Your task to perform on an android device: Clear all items from cart on bestbuy.com. Add "razer naga" to the cart on bestbuy.com, then select checkout. Image 0: 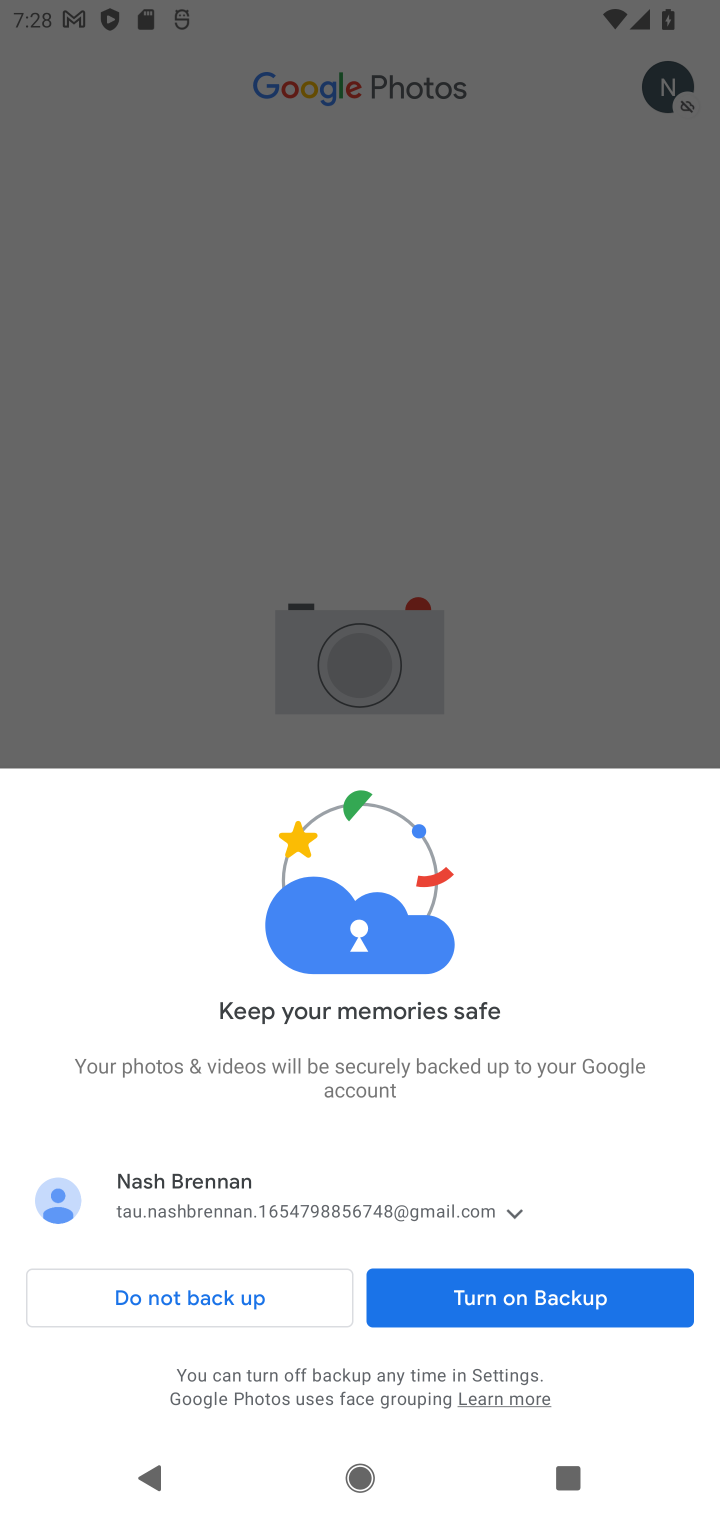
Step 0: press home button
Your task to perform on an android device: Clear all items from cart on bestbuy.com. Add "razer naga" to the cart on bestbuy.com, then select checkout. Image 1: 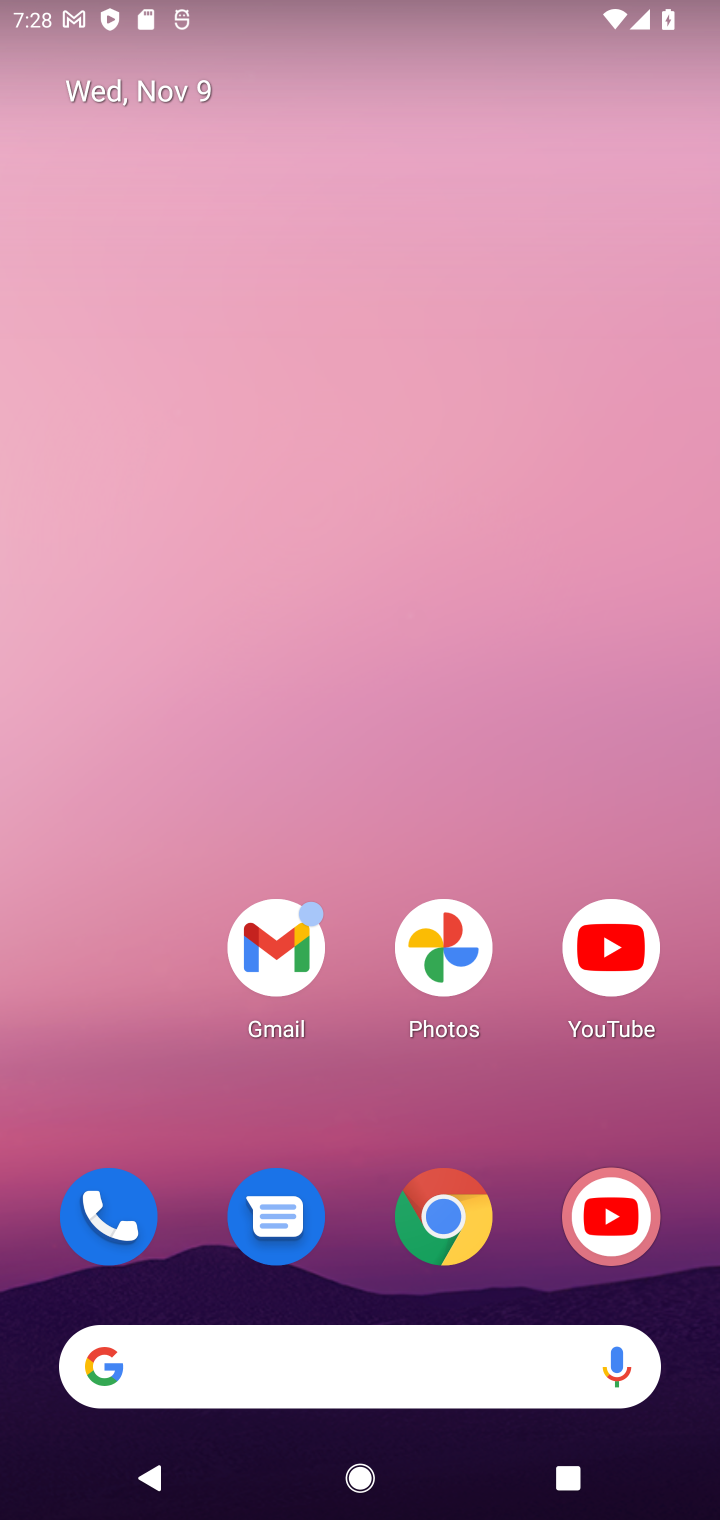
Step 1: drag from (388, 686) to (348, 158)
Your task to perform on an android device: Clear all items from cart on bestbuy.com. Add "razer naga" to the cart on bestbuy.com, then select checkout. Image 2: 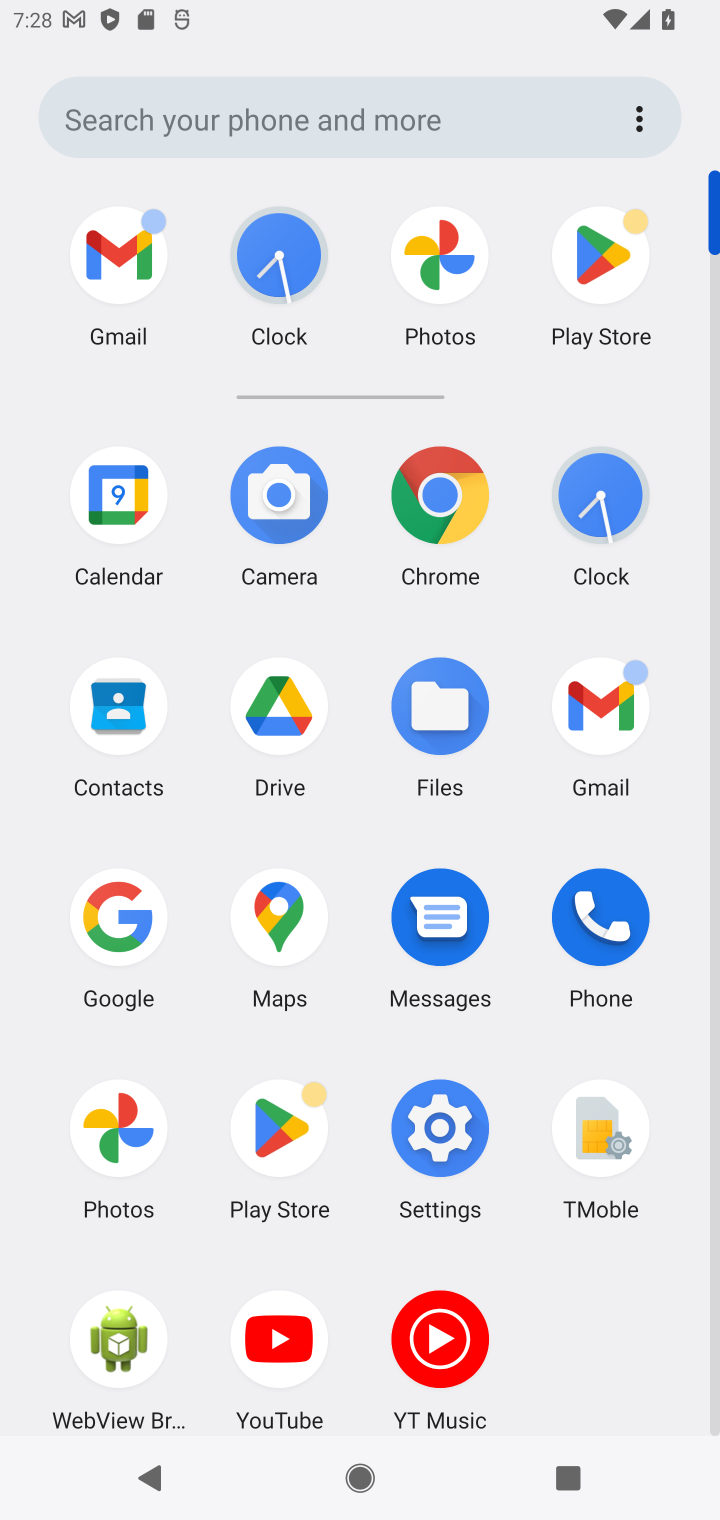
Step 2: click (438, 498)
Your task to perform on an android device: Clear all items from cart on bestbuy.com. Add "razer naga" to the cart on bestbuy.com, then select checkout. Image 3: 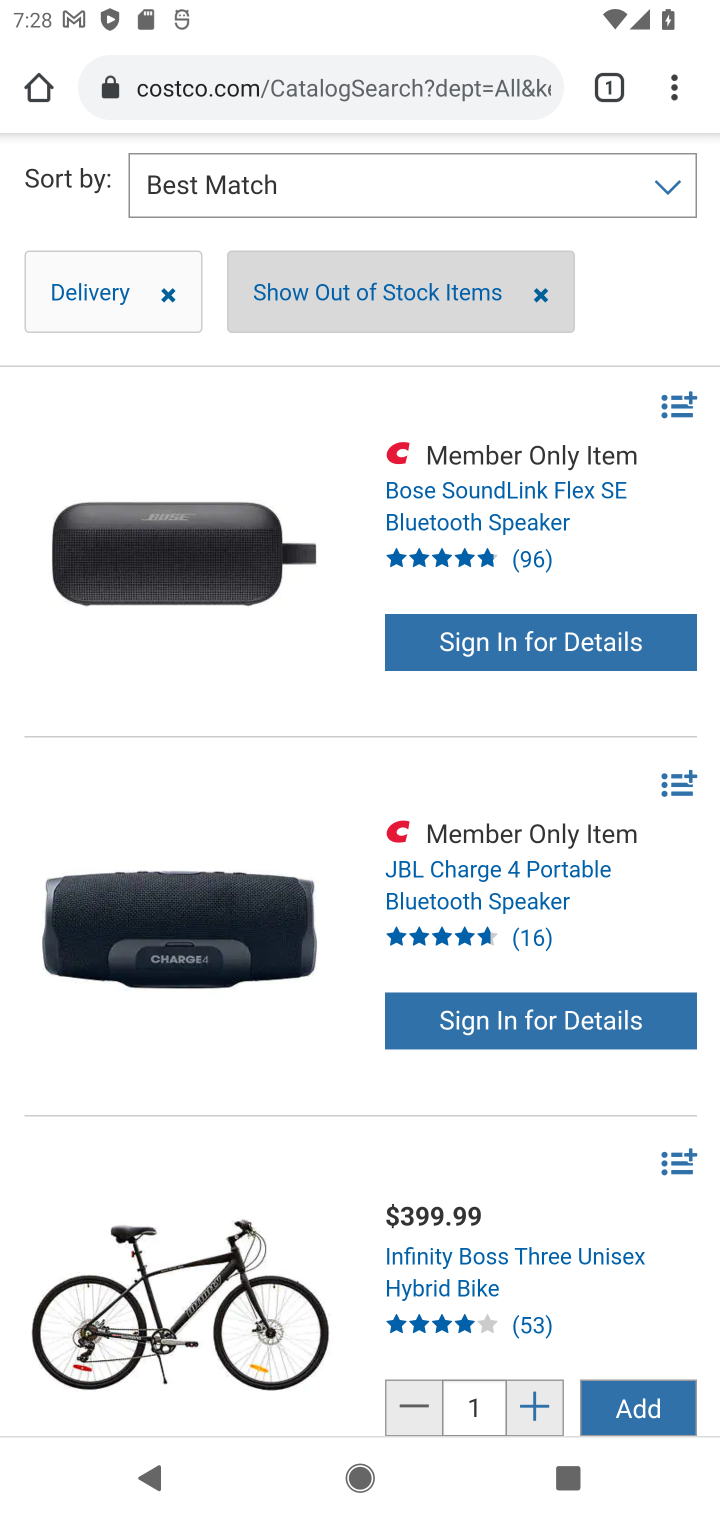
Step 3: click (496, 89)
Your task to perform on an android device: Clear all items from cart on bestbuy.com. Add "razer naga" to the cart on bestbuy.com, then select checkout. Image 4: 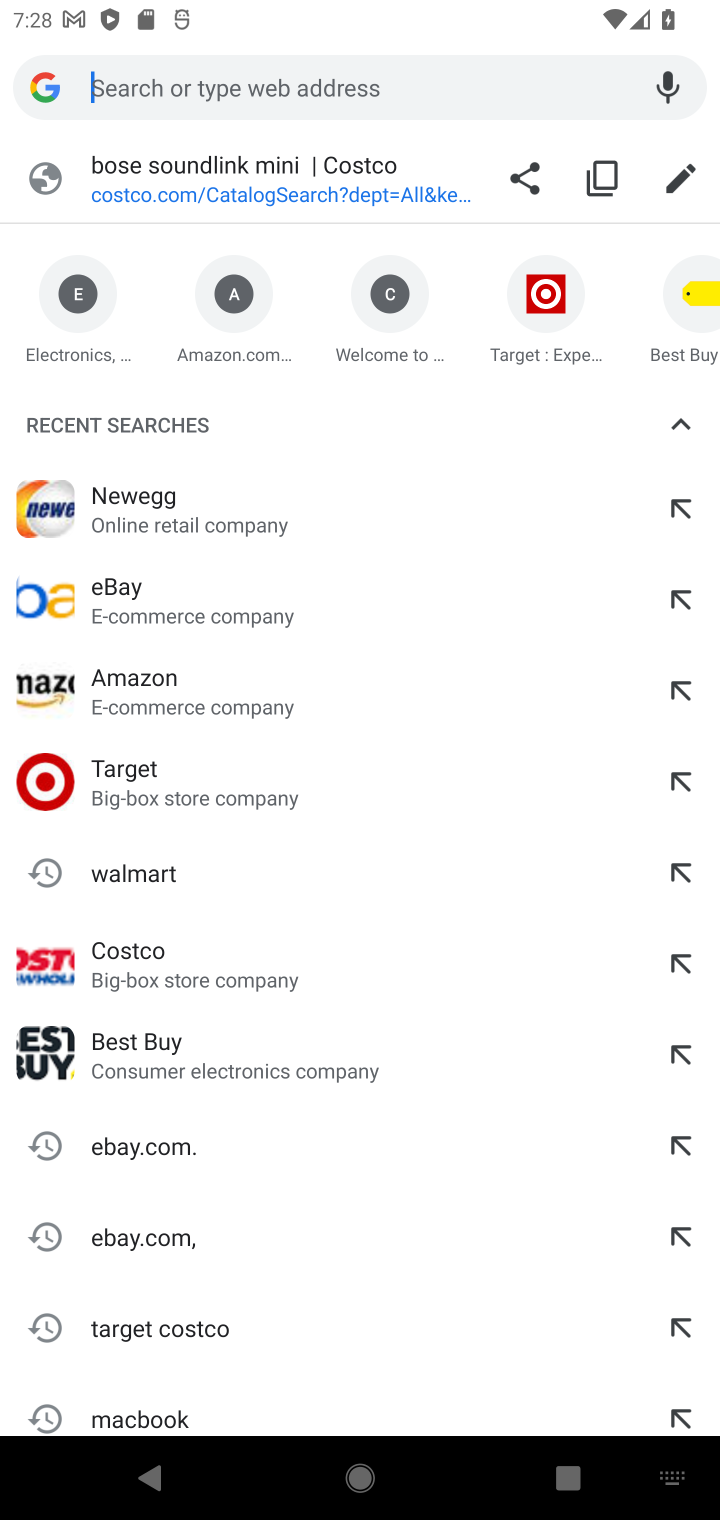
Step 4: type "bestbuy.com"
Your task to perform on an android device: Clear all items from cart on bestbuy.com. Add "razer naga" to the cart on bestbuy.com, then select checkout. Image 5: 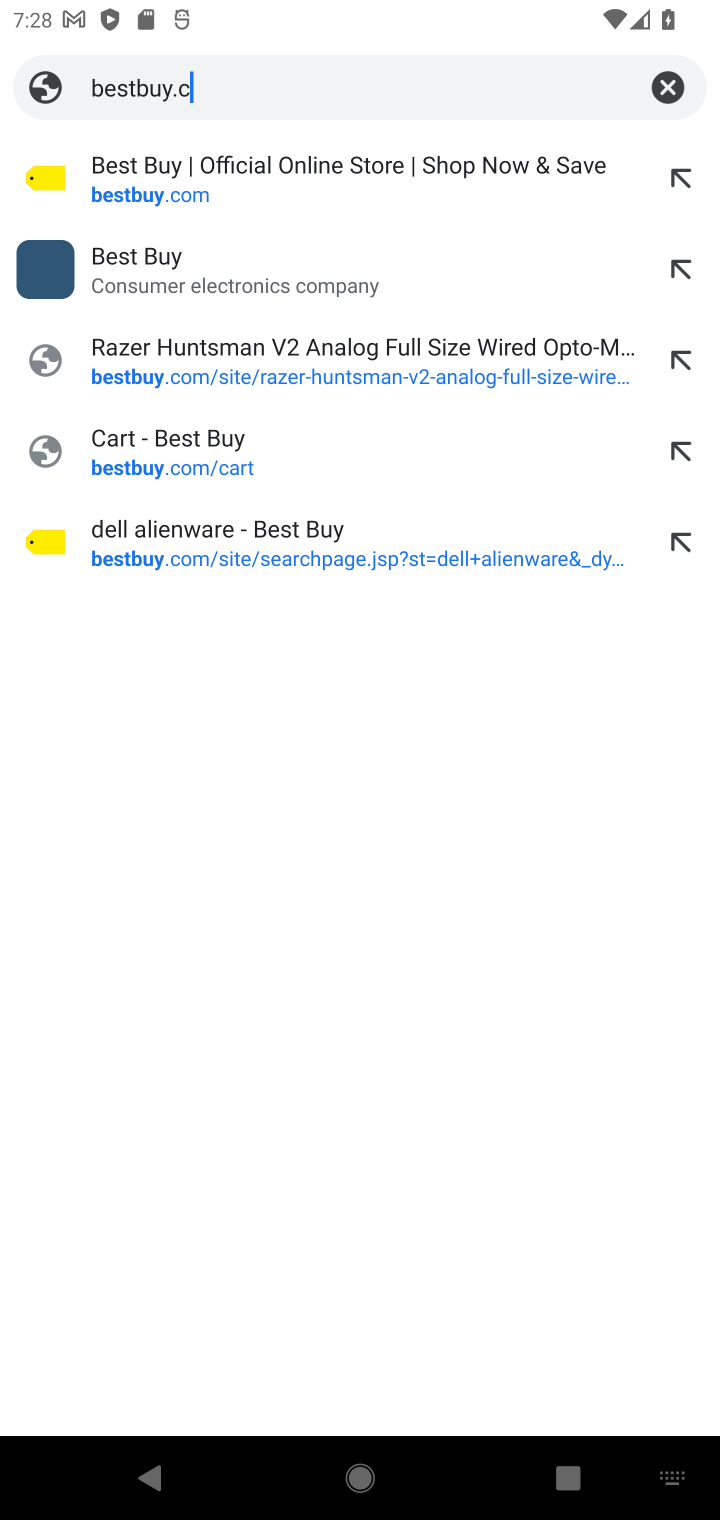
Step 5: press enter
Your task to perform on an android device: Clear all items from cart on bestbuy.com. Add "razer naga" to the cart on bestbuy.com, then select checkout. Image 6: 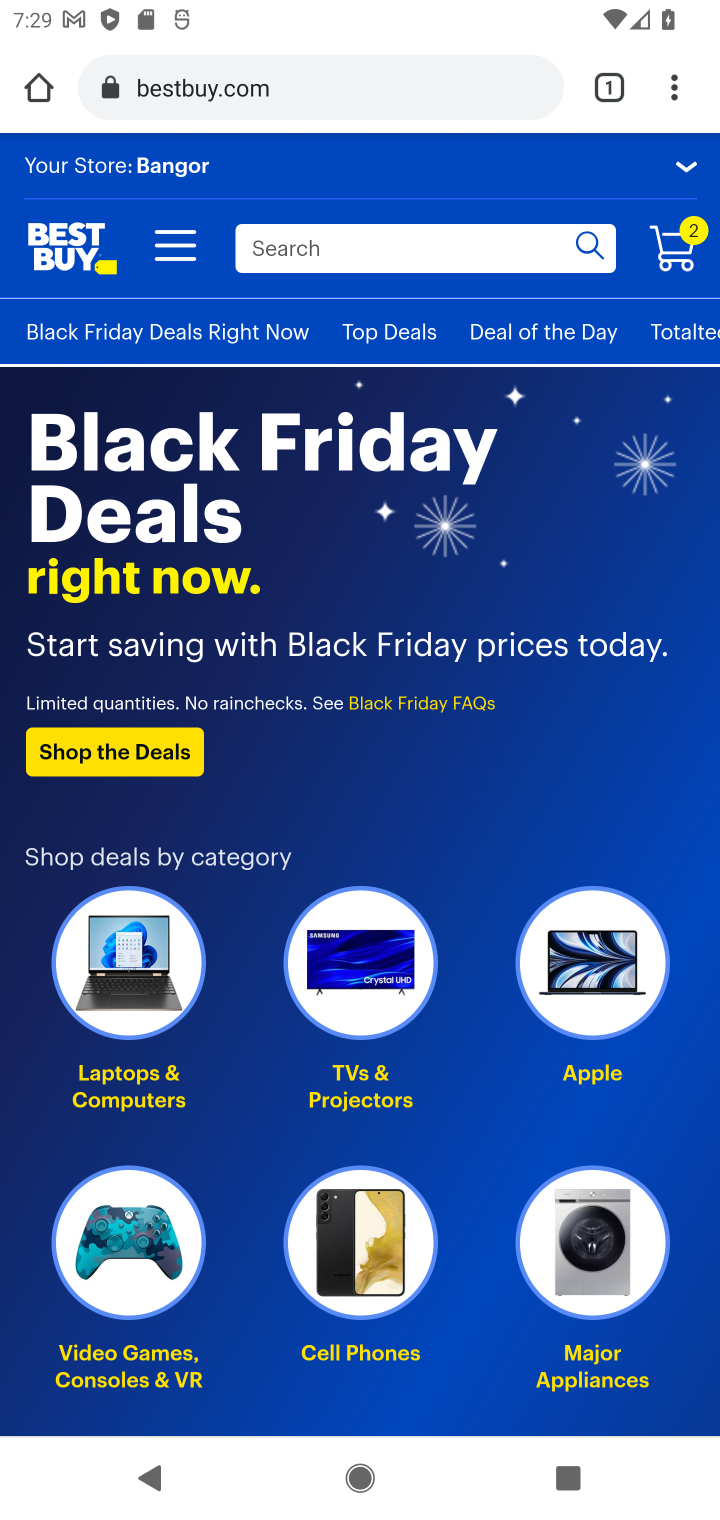
Step 6: click (497, 263)
Your task to perform on an android device: Clear all items from cart on bestbuy.com. Add "razer naga" to the cart on bestbuy.com, then select checkout. Image 7: 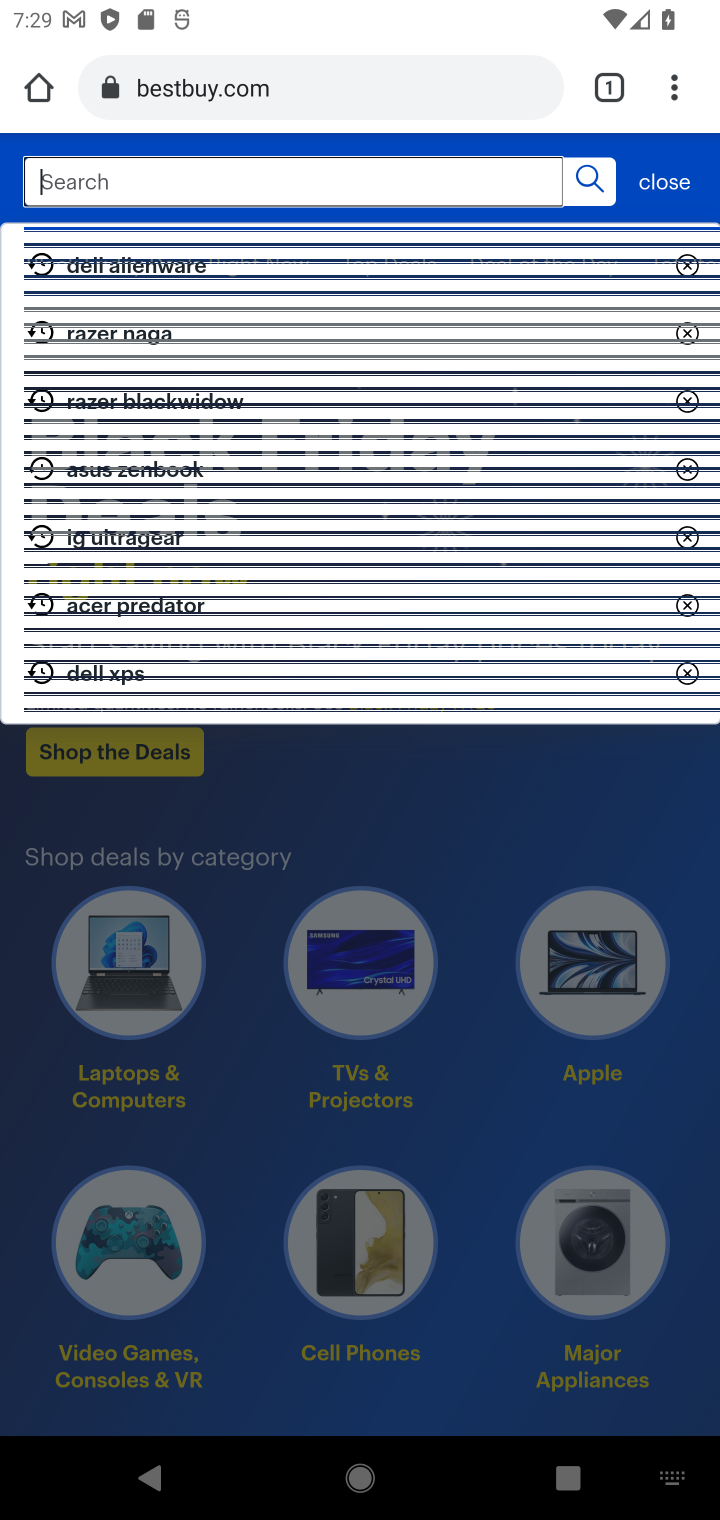
Step 7: type "razer naga"
Your task to perform on an android device: Clear all items from cart on bestbuy.com. Add "razer naga" to the cart on bestbuy.com, then select checkout. Image 8: 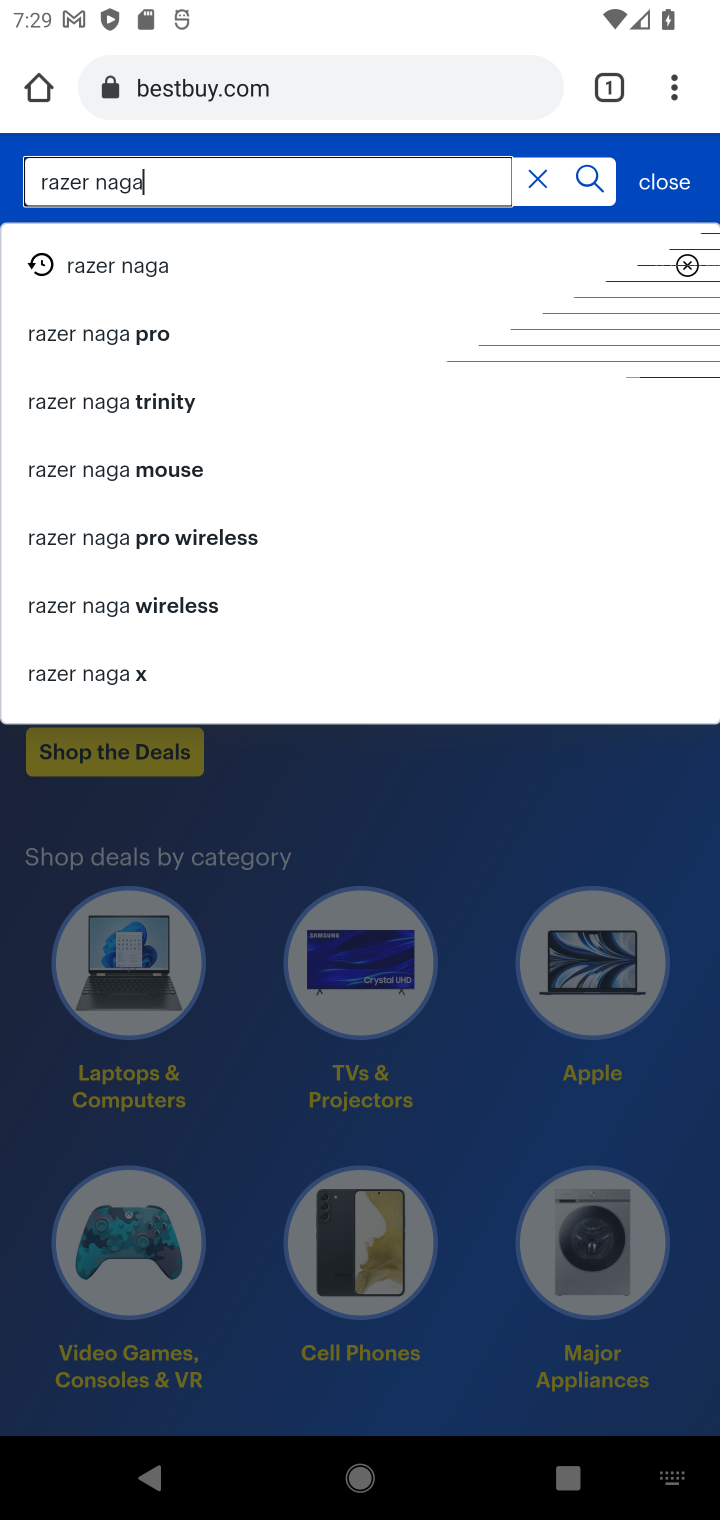
Step 8: press enter
Your task to perform on an android device: Clear all items from cart on bestbuy.com. Add "razer naga" to the cart on bestbuy.com, then select checkout. Image 9: 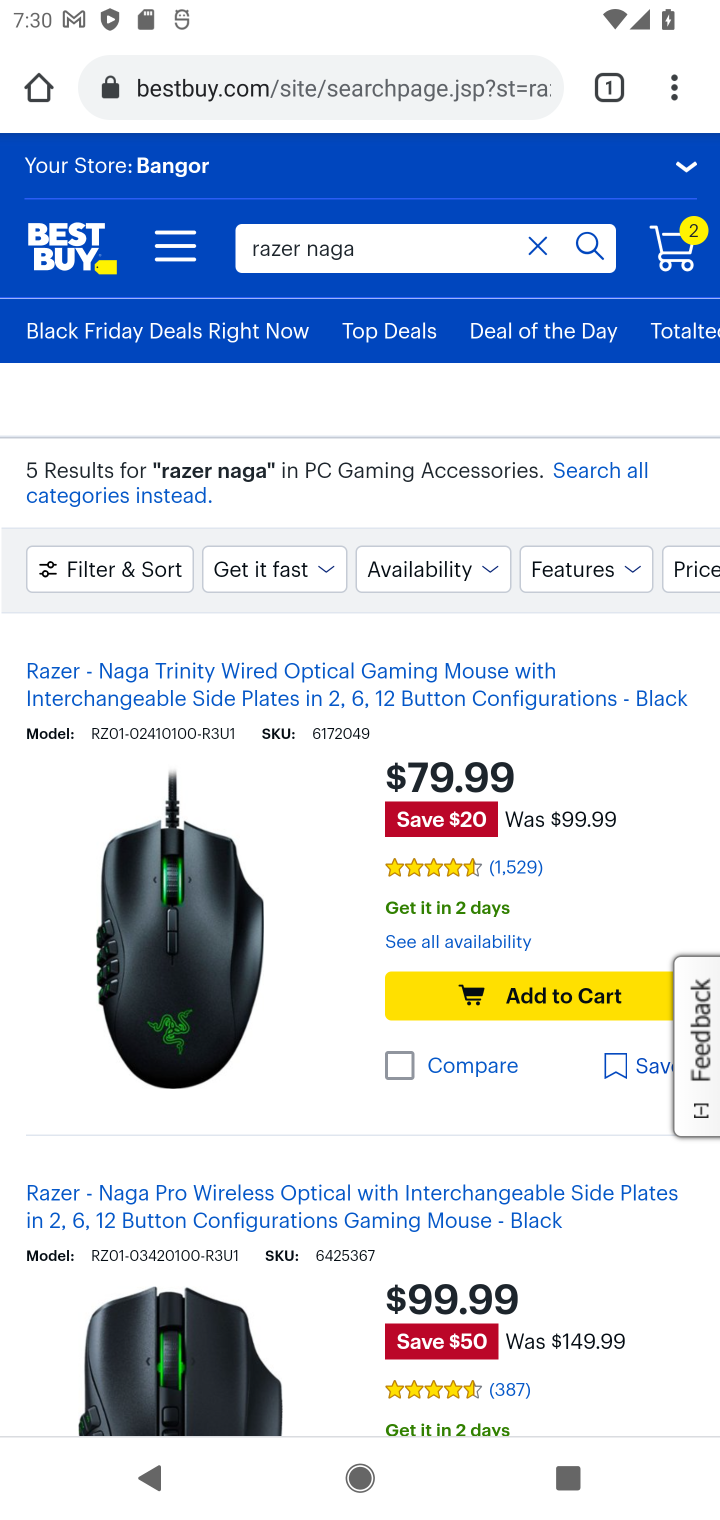
Step 9: click (561, 990)
Your task to perform on an android device: Clear all items from cart on bestbuy.com. Add "razer naga" to the cart on bestbuy.com, then select checkout. Image 10: 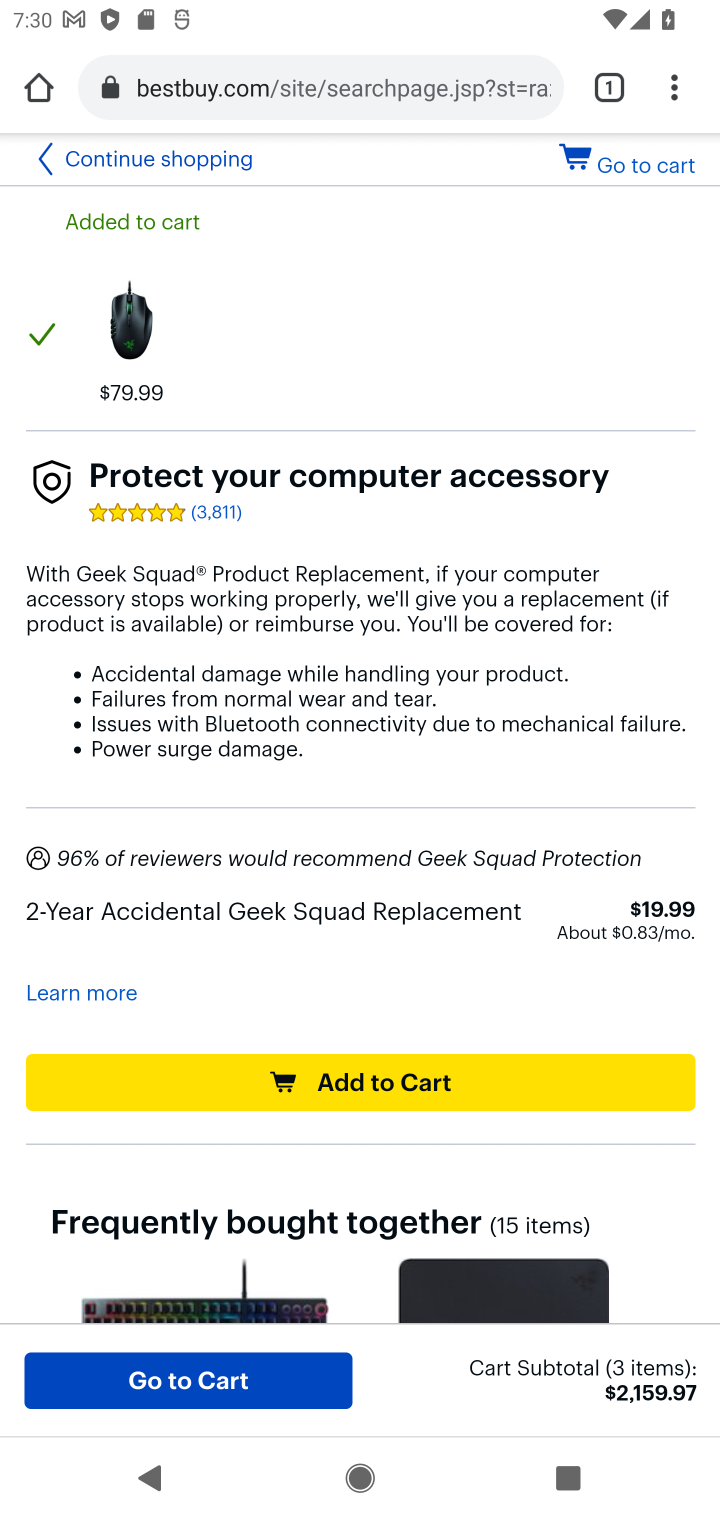
Step 10: click (117, 1390)
Your task to perform on an android device: Clear all items from cart on bestbuy.com. Add "razer naga" to the cart on bestbuy.com, then select checkout. Image 11: 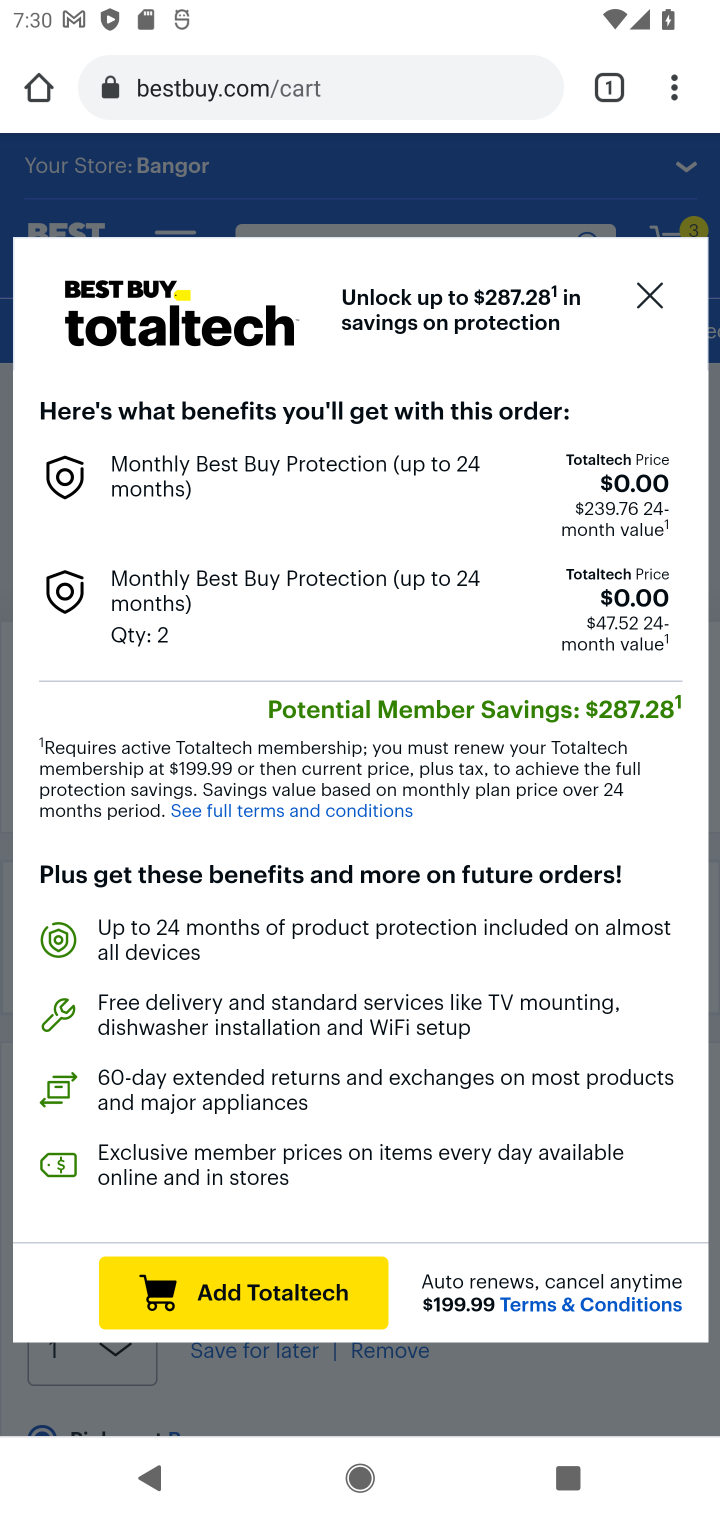
Step 11: click (660, 293)
Your task to perform on an android device: Clear all items from cart on bestbuy.com. Add "razer naga" to the cart on bestbuy.com, then select checkout. Image 12: 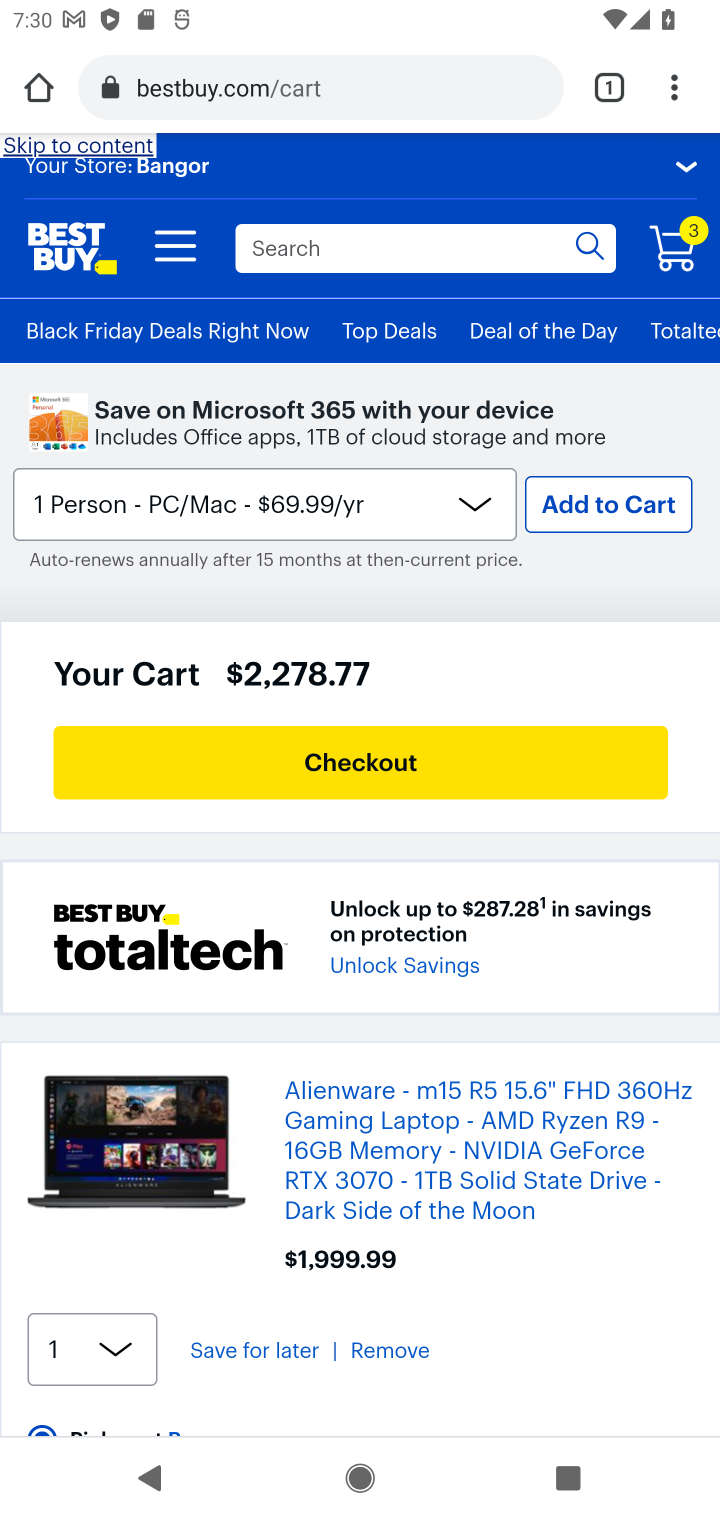
Step 12: click (402, 762)
Your task to perform on an android device: Clear all items from cart on bestbuy.com. Add "razer naga" to the cart on bestbuy.com, then select checkout. Image 13: 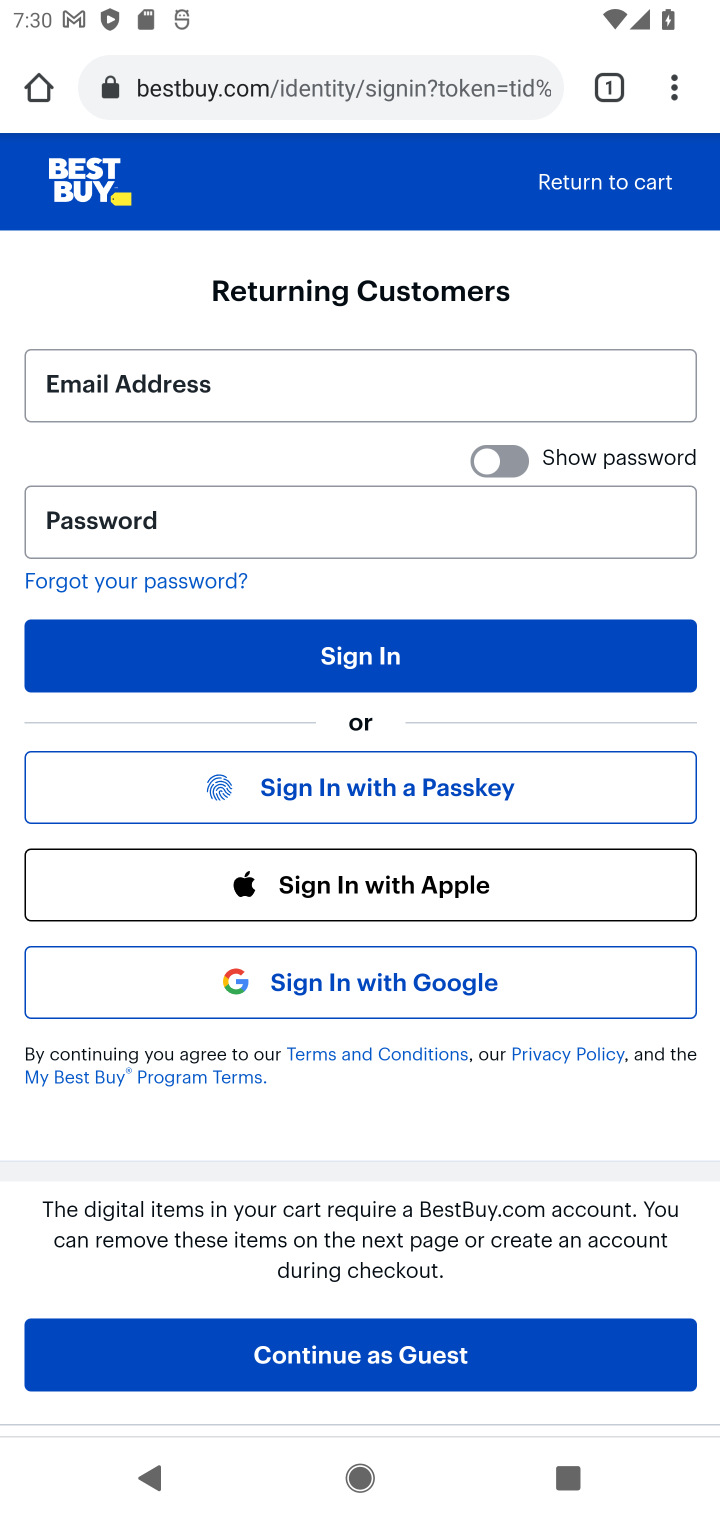
Step 13: task complete